Your task to perform on an android device: turn on priority inbox in the gmail app Image 0: 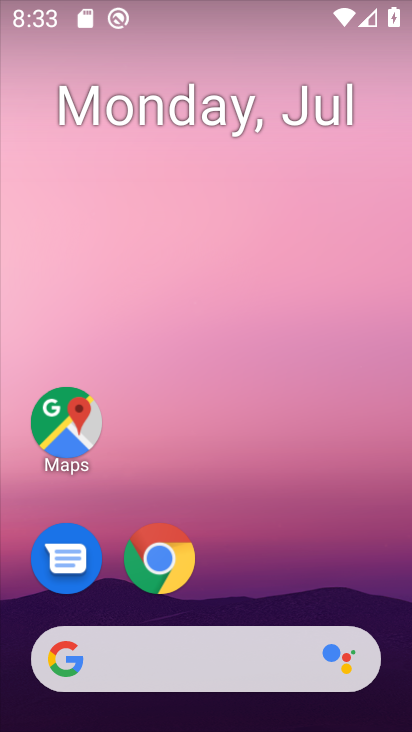
Step 0: drag from (352, 575) to (348, 171)
Your task to perform on an android device: turn on priority inbox in the gmail app Image 1: 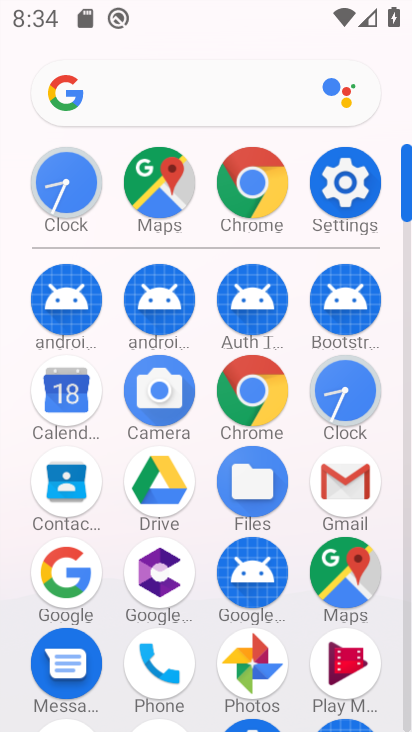
Step 1: click (352, 475)
Your task to perform on an android device: turn on priority inbox in the gmail app Image 2: 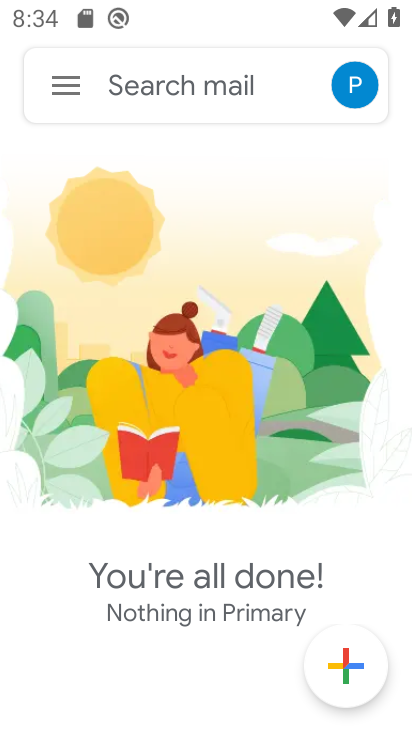
Step 2: click (64, 92)
Your task to perform on an android device: turn on priority inbox in the gmail app Image 3: 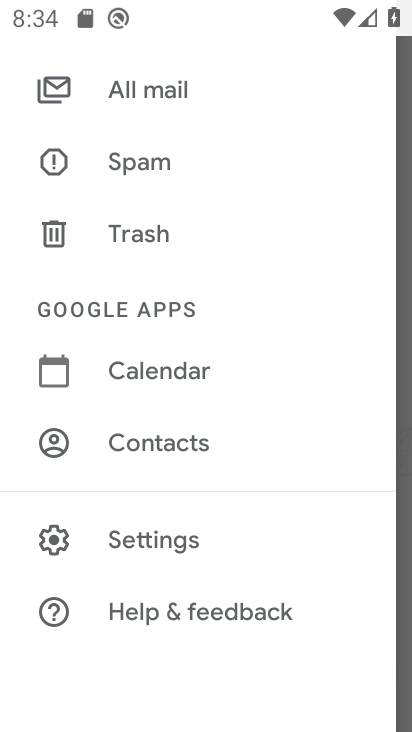
Step 3: drag from (289, 248) to (293, 336)
Your task to perform on an android device: turn on priority inbox in the gmail app Image 4: 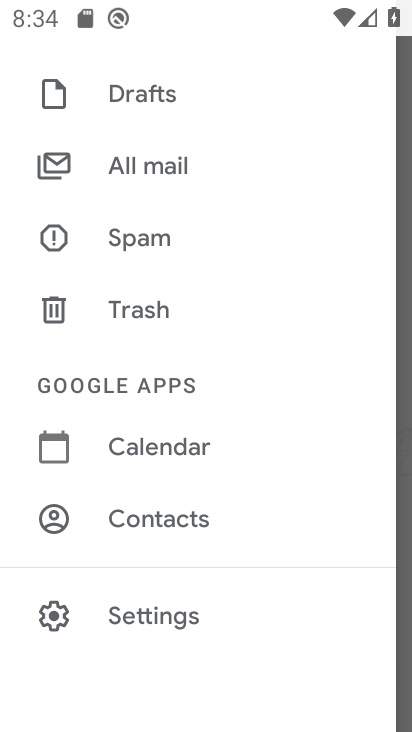
Step 4: drag from (303, 241) to (303, 343)
Your task to perform on an android device: turn on priority inbox in the gmail app Image 5: 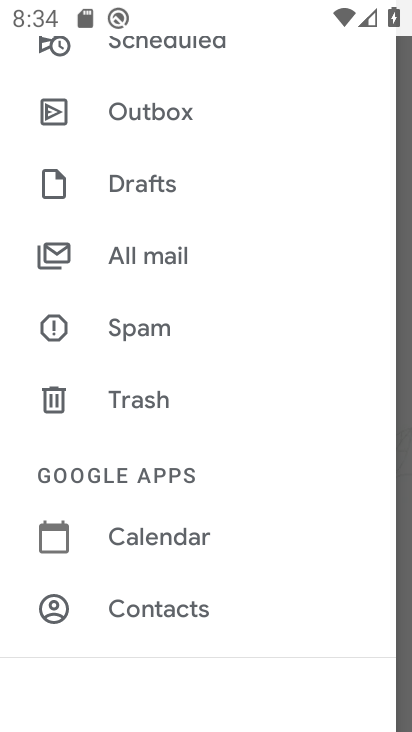
Step 5: drag from (299, 229) to (295, 321)
Your task to perform on an android device: turn on priority inbox in the gmail app Image 6: 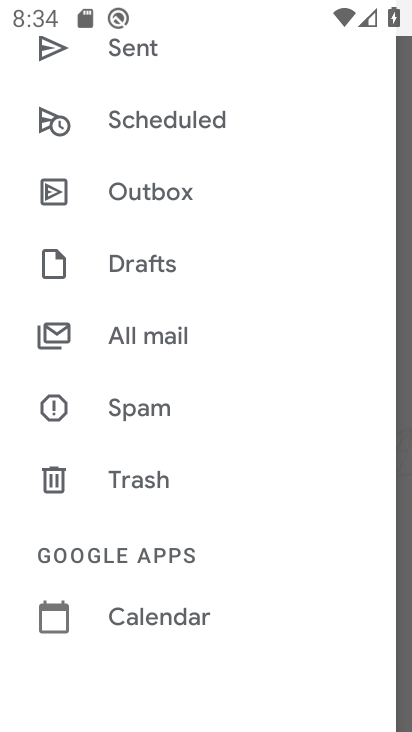
Step 6: drag from (298, 224) to (301, 380)
Your task to perform on an android device: turn on priority inbox in the gmail app Image 7: 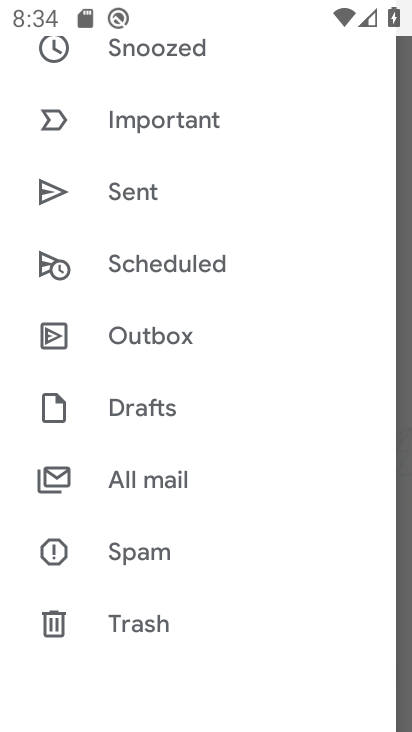
Step 7: drag from (300, 475) to (300, 394)
Your task to perform on an android device: turn on priority inbox in the gmail app Image 8: 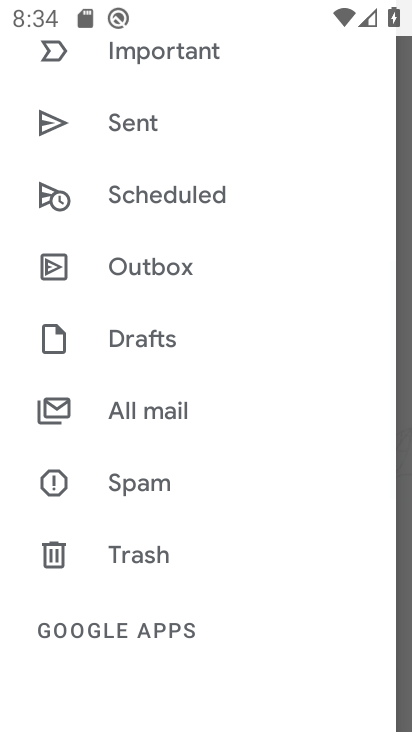
Step 8: drag from (300, 487) to (295, 406)
Your task to perform on an android device: turn on priority inbox in the gmail app Image 9: 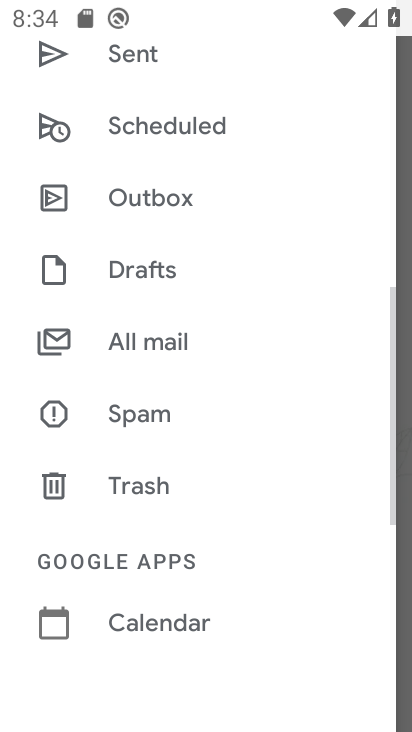
Step 9: drag from (290, 509) to (291, 419)
Your task to perform on an android device: turn on priority inbox in the gmail app Image 10: 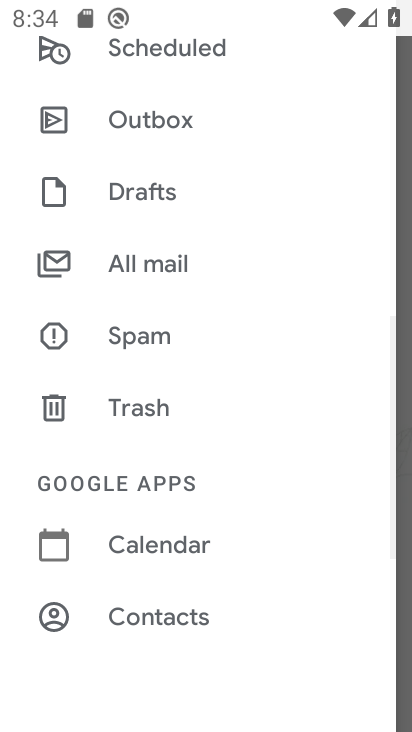
Step 10: drag from (286, 530) to (293, 403)
Your task to perform on an android device: turn on priority inbox in the gmail app Image 11: 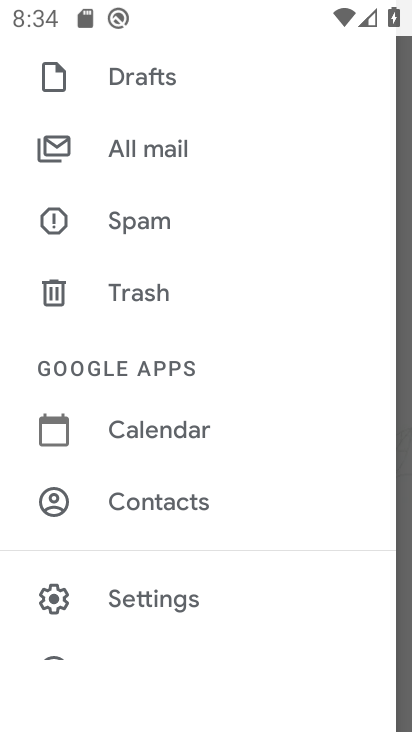
Step 11: drag from (277, 550) to (282, 434)
Your task to perform on an android device: turn on priority inbox in the gmail app Image 12: 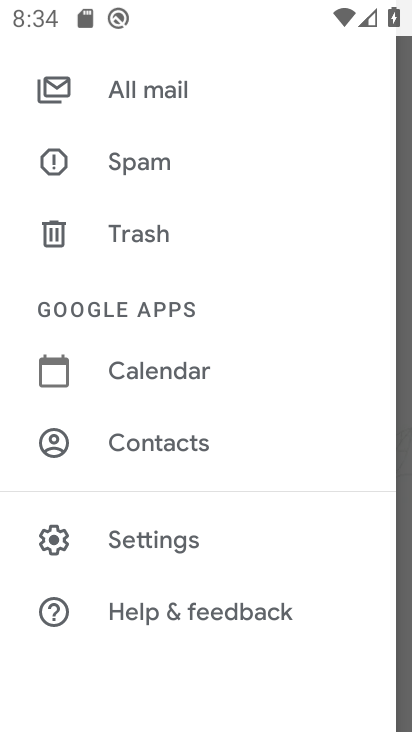
Step 12: click (231, 556)
Your task to perform on an android device: turn on priority inbox in the gmail app Image 13: 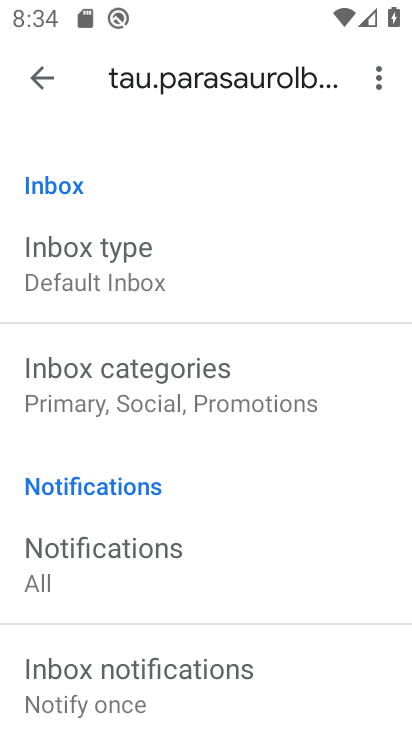
Step 13: drag from (330, 513) to (331, 441)
Your task to perform on an android device: turn on priority inbox in the gmail app Image 14: 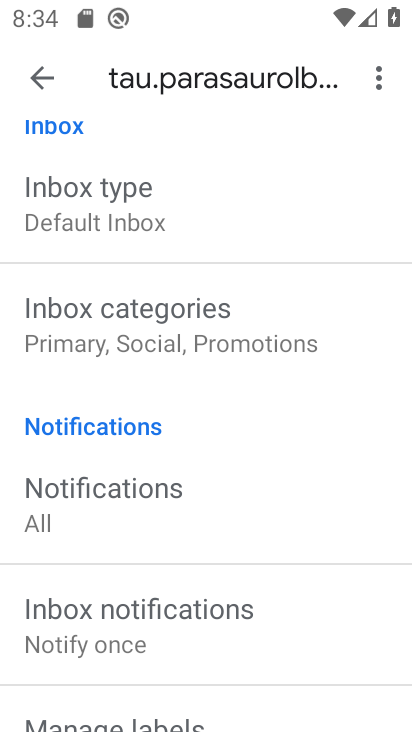
Step 14: drag from (328, 494) to (318, 438)
Your task to perform on an android device: turn on priority inbox in the gmail app Image 15: 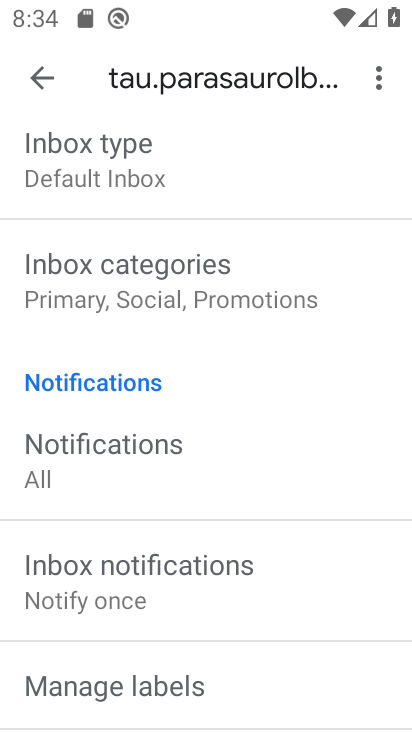
Step 15: drag from (306, 510) to (310, 436)
Your task to perform on an android device: turn on priority inbox in the gmail app Image 16: 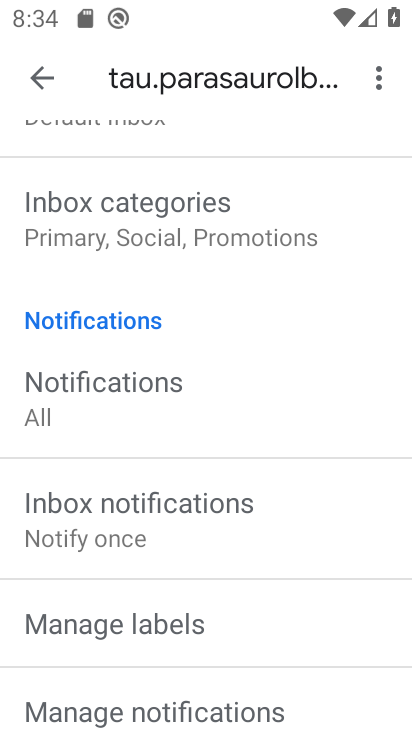
Step 16: drag from (297, 517) to (307, 427)
Your task to perform on an android device: turn on priority inbox in the gmail app Image 17: 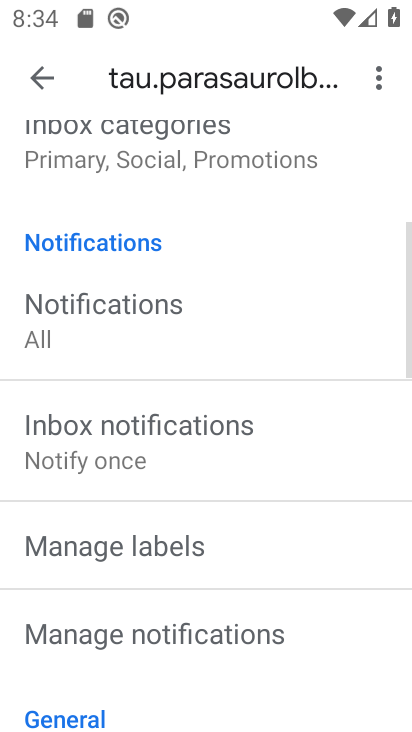
Step 17: drag from (297, 513) to (300, 444)
Your task to perform on an android device: turn on priority inbox in the gmail app Image 18: 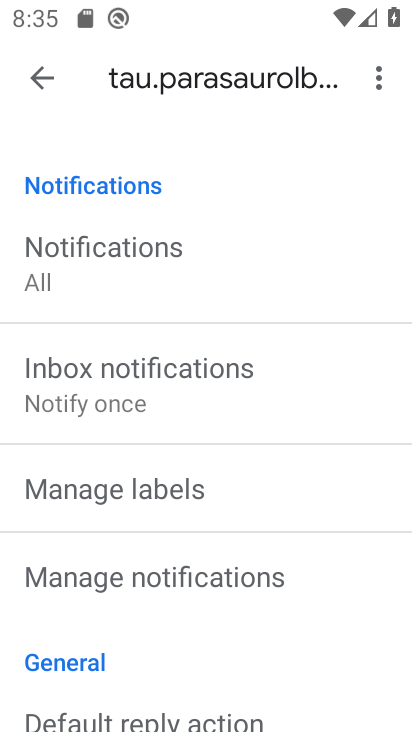
Step 18: drag from (285, 546) to (285, 460)
Your task to perform on an android device: turn on priority inbox in the gmail app Image 19: 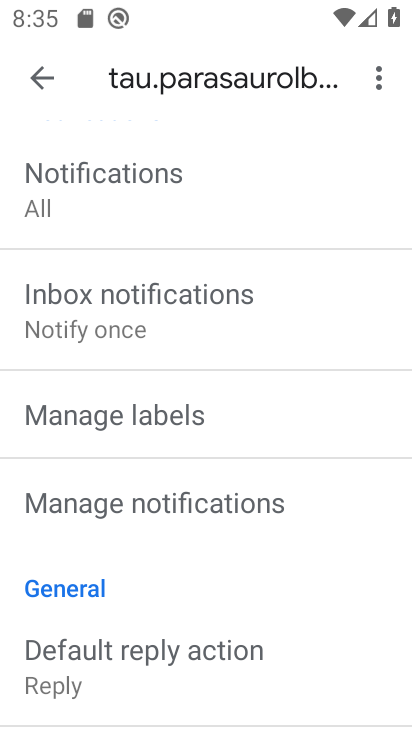
Step 19: drag from (277, 556) to (280, 472)
Your task to perform on an android device: turn on priority inbox in the gmail app Image 20: 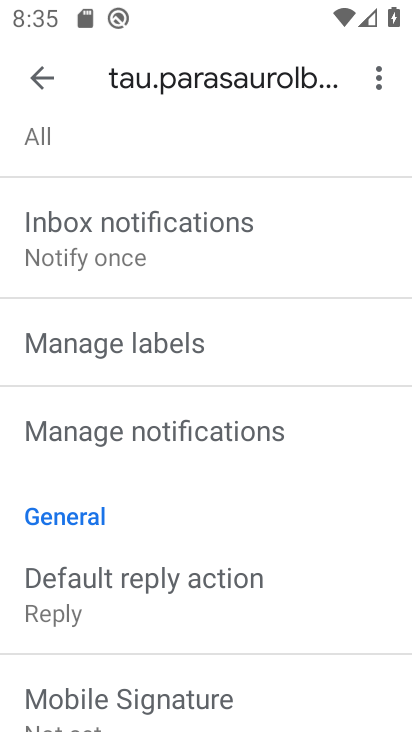
Step 20: drag from (308, 319) to (309, 398)
Your task to perform on an android device: turn on priority inbox in the gmail app Image 21: 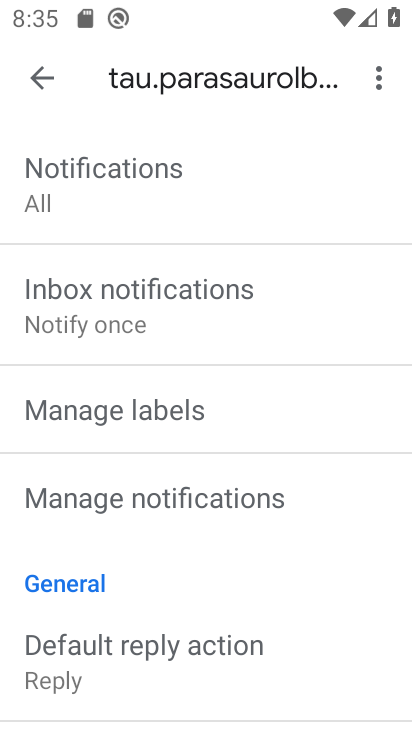
Step 21: drag from (316, 299) to (321, 377)
Your task to perform on an android device: turn on priority inbox in the gmail app Image 22: 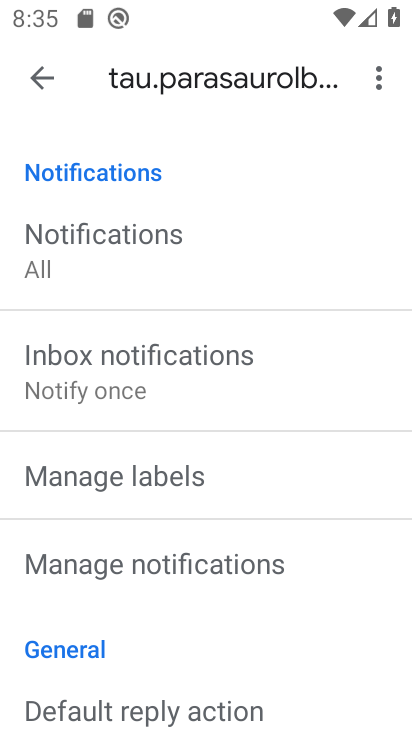
Step 22: drag from (321, 292) to (325, 365)
Your task to perform on an android device: turn on priority inbox in the gmail app Image 23: 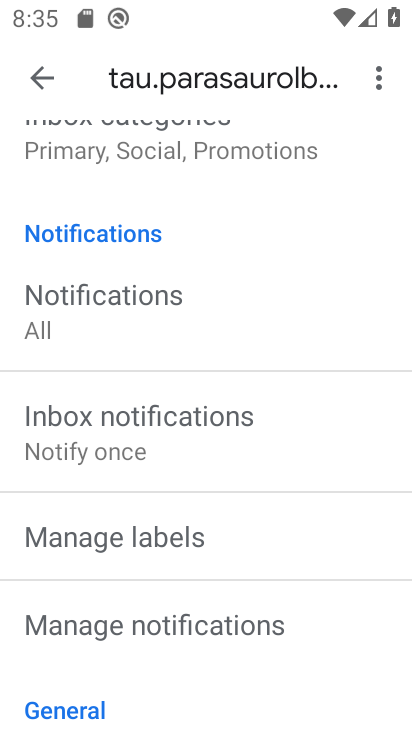
Step 23: drag from (324, 300) to (324, 373)
Your task to perform on an android device: turn on priority inbox in the gmail app Image 24: 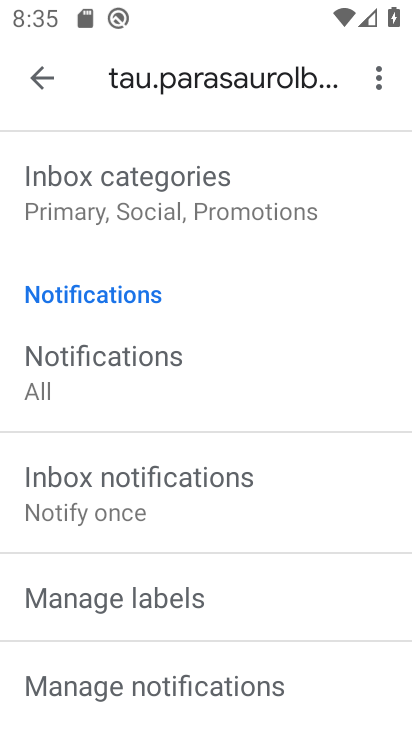
Step 24: drag from (330, 293) to (330, 380)
Your task to perform on an android device: turn on priority inbox in the gmail app Image 25: 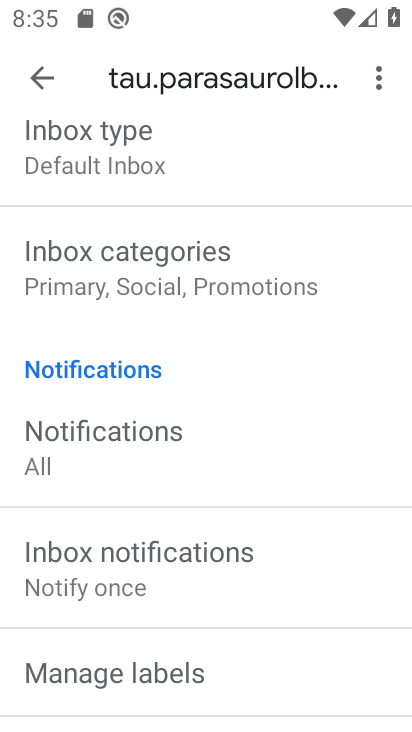
Step 25: drag from (330, 296) to (328, 384)
Your task to perform on an android device: turn on priority inbox in the gmail app Image 26: 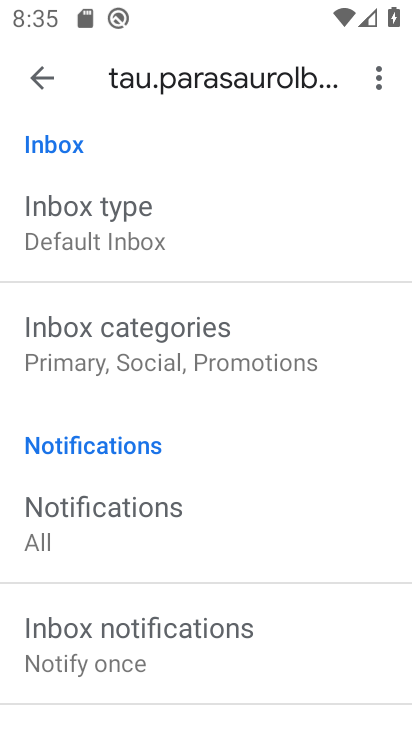
Step 26: drag from (331, 290) to (341, 389)
Your task to perform on an android device: turn on priority inbox in the gmail app Image 27: 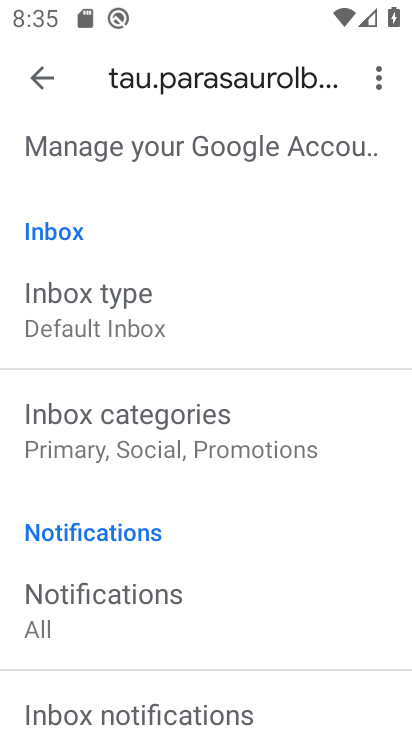
Step 27: drag from (342, 302) to (341, 413)
Your task to perform on an android device: turn on priority inbox in the gmail app Image 28: 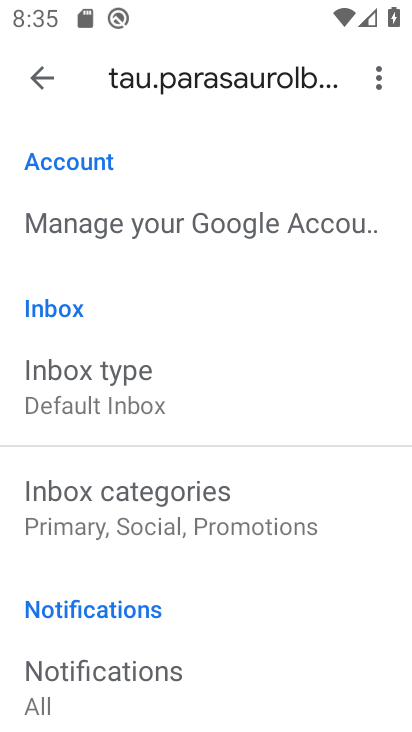
Step 28: drag from (320, 274) to (320, 375)
Your task to perform on an android device: turn on priority inbox in the gmail app Image 29: 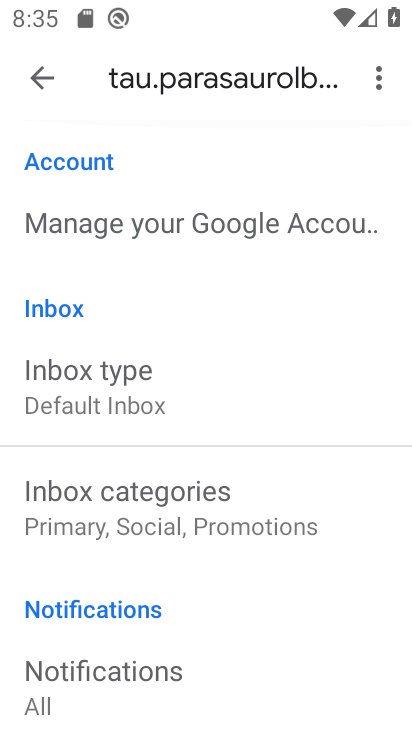
Step 29: click (223, 396)
Your task to perform on an android device: turn on priority inbox in the gmail app Image 30: 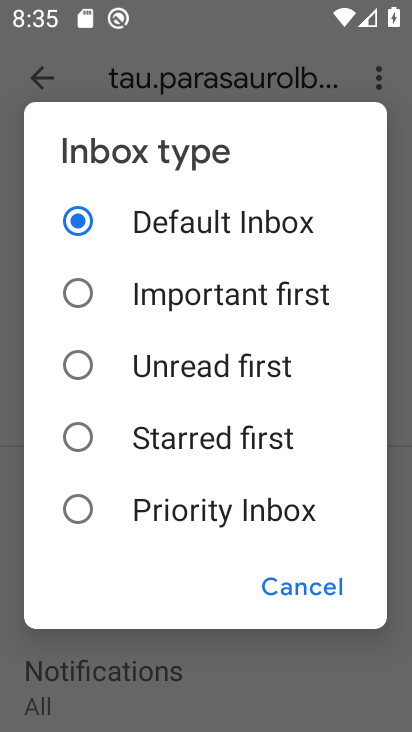
Step 30: click (217, 500)
Your task to perform on an android device: turn on priority inbox in the gmail app Image 31: 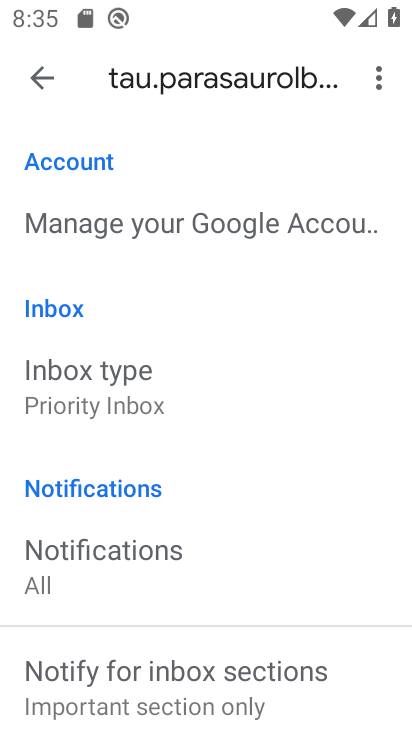
Step 31: task complete